Your task to perform on an android device: Go to privacy settings Image 0: 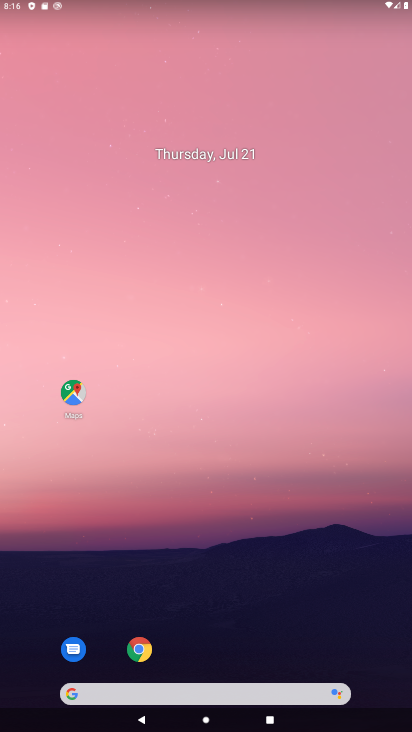
Step 0: drag from (194, 649) to (233, 147)
Your task to perform on an android device: Go to privacy settings Image 1: 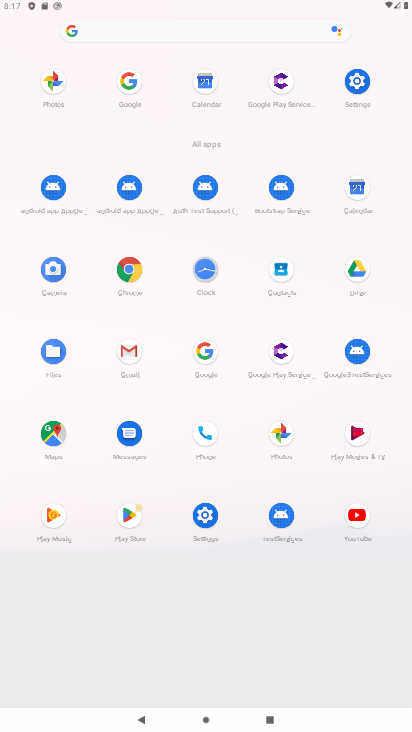
Step 1: click (357, 80)
Your task to perform on an android device: Go to privacy settings Image 2: 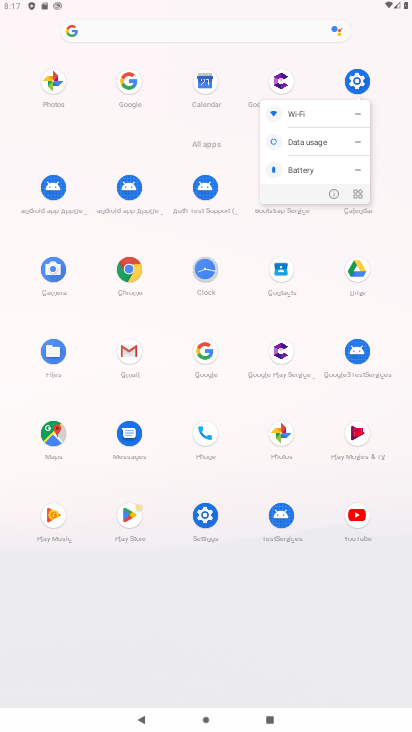
Step 2: click (357, 80)
Your task to perform on an android device: Go to privacy settings Image 3: 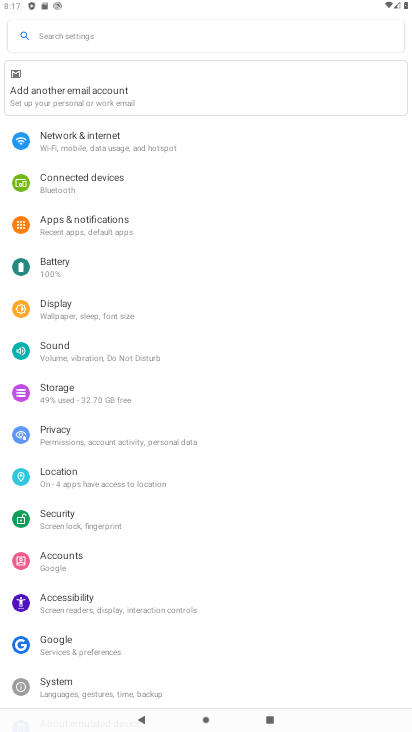
Step 3: click (55, 430)
Your task to perform on an android device: Go to privacy settings Image 4: 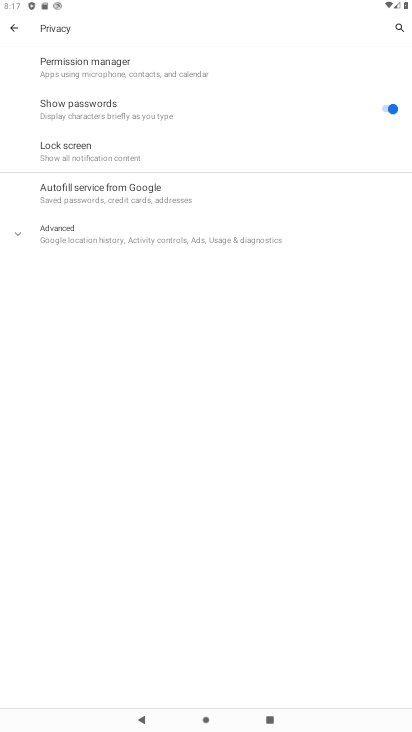
Step 4: task complete